Your task to perform on an android device: Check the weather Image 0: 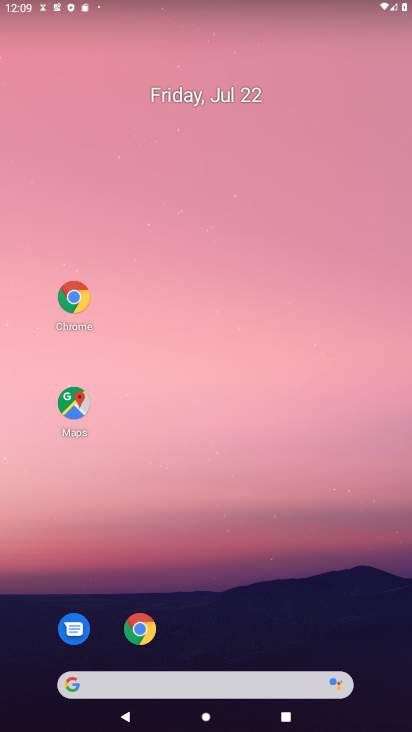
Step 0: drag from (278, 709) to (228, 175)
Your task to perform on an android device: Check the weather Image 1: 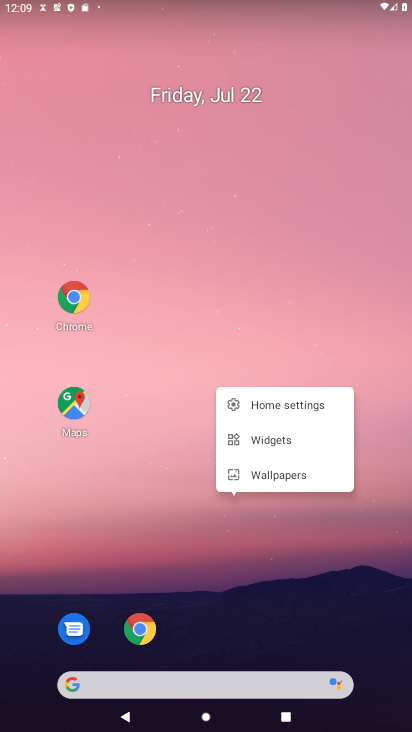
Step 1: drag from (239, 596) to (200, 113)
Your task to perform on an android device: Check the weather Image 2: 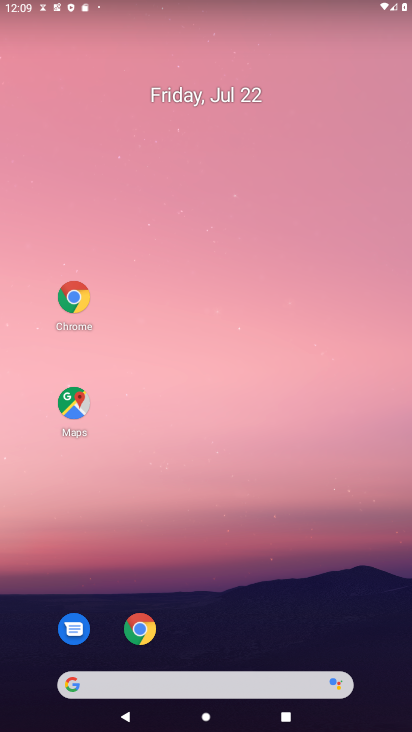
Step 2: drag from (197, 583) to (177, 202)
Your task to perform on an android device: Check the weather Image 3: 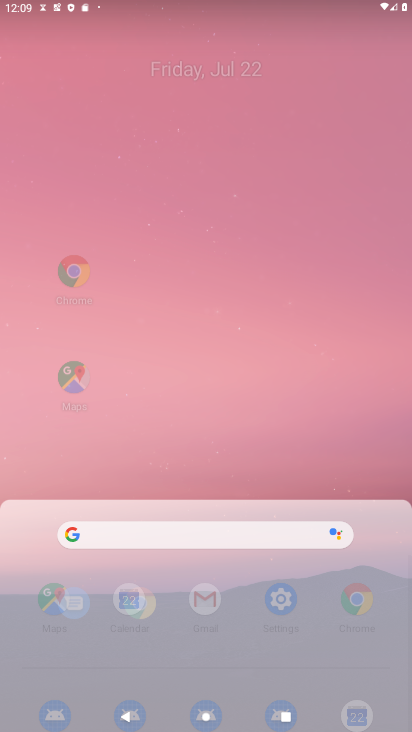
Step 3: click (177, 287)
Your task to perform on an android device: Check the weather Image 4: 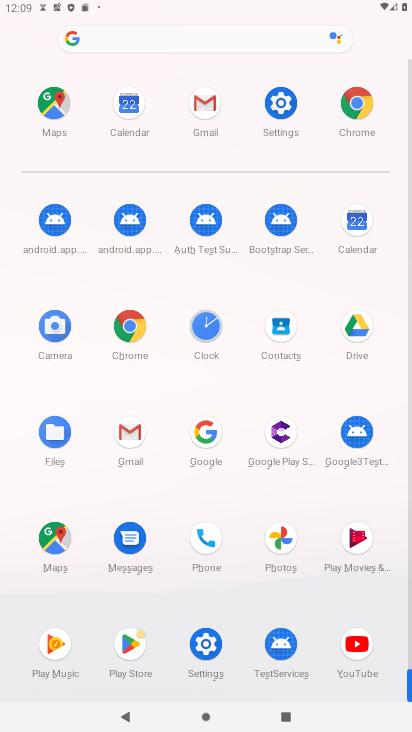
Step 4: click (348, 114)
Your task to perform on an android device: Check the weather Image 5: 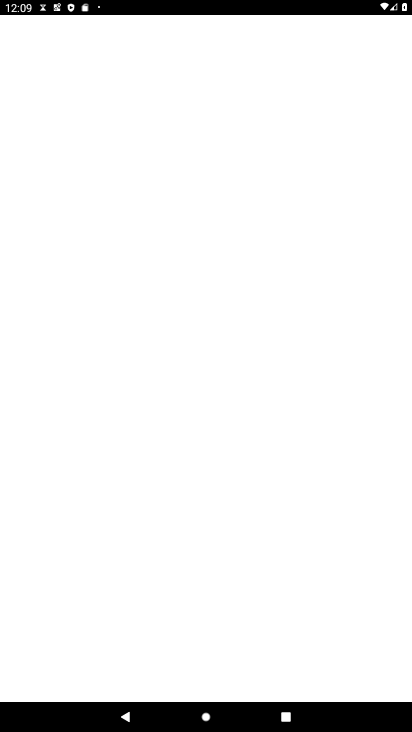
Step 5: click (348, 111)
Your task to perform on an android device: Check the weather Image 6: 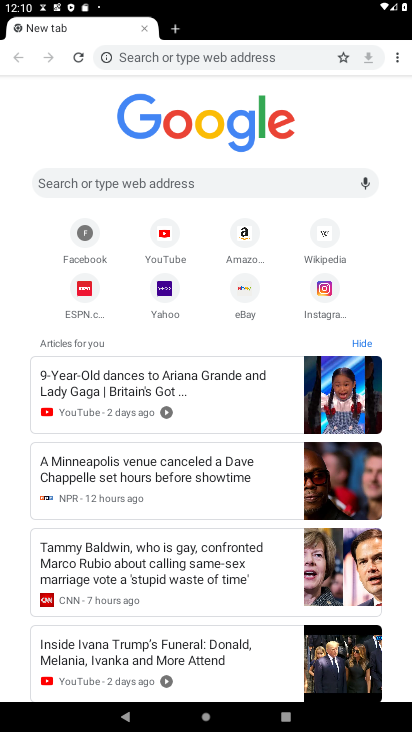
Step 6: click (79, 184)
Your task to perform on an android device: Check the weather Image 7: 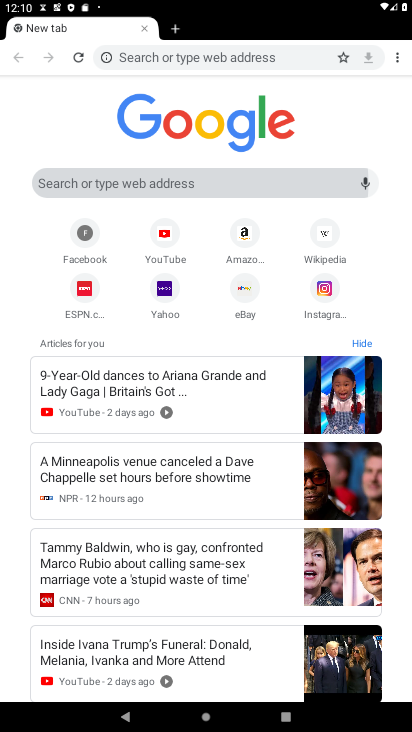
Step 7: click (79, 184)
Your task to perform on an android device: Check the weather Image 8: 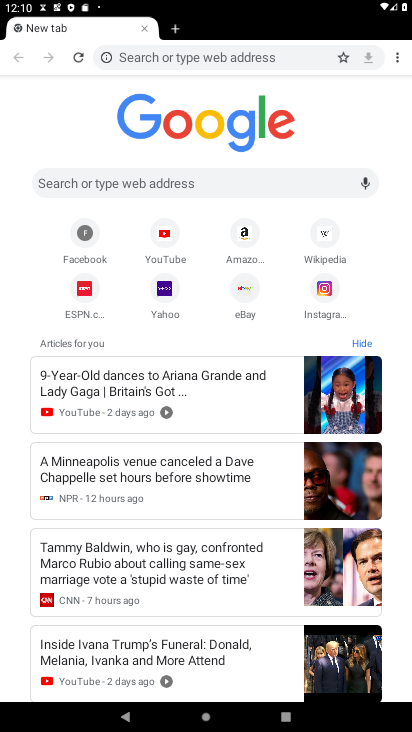
Step 8: click (66, 180)
Your task to perform on an android device: Check the weather Image 9: 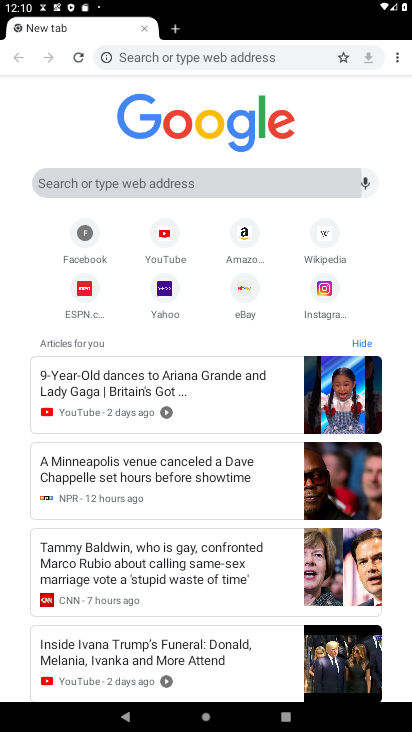
Step 9: click (67, 180)
Your task to perform on an android device: Check the weather Image 10: 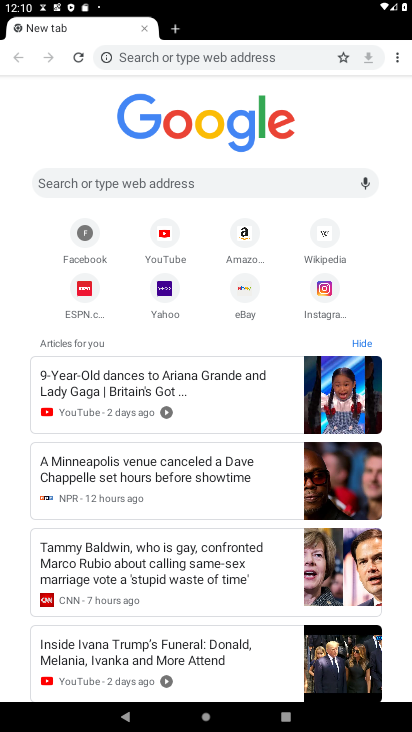
Step 10: click (123, 56)
Your task to perform on an android device: Check the weather Image 11: 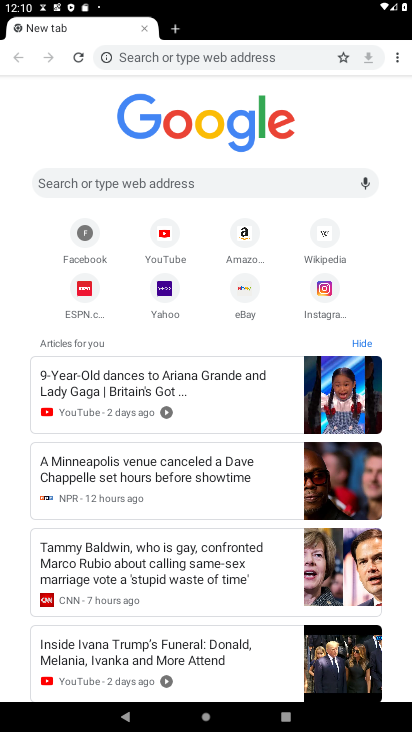
Step 11: click (123, 56)
Your task to perform on an android device: Check the weather Image 12: 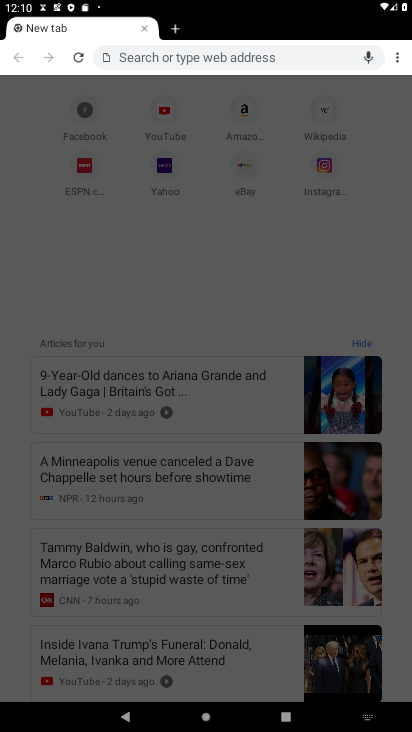
Step 12: click (123, 56)
Your task to perform on an android device: Check the weather Image 13: 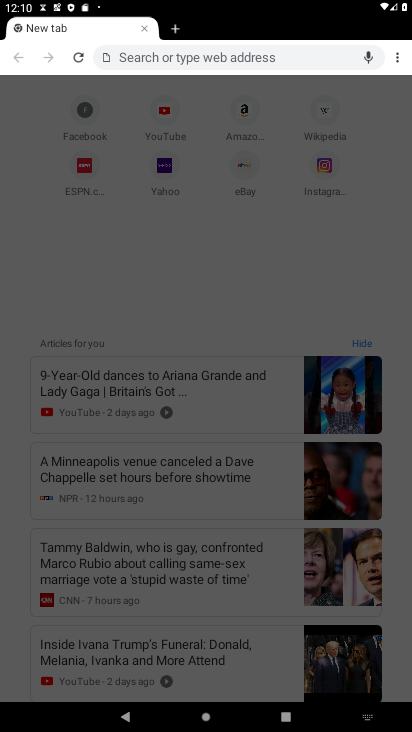
Step 13: click (123, 56)
Your task to perform on an android device: Check the weather Image 14: 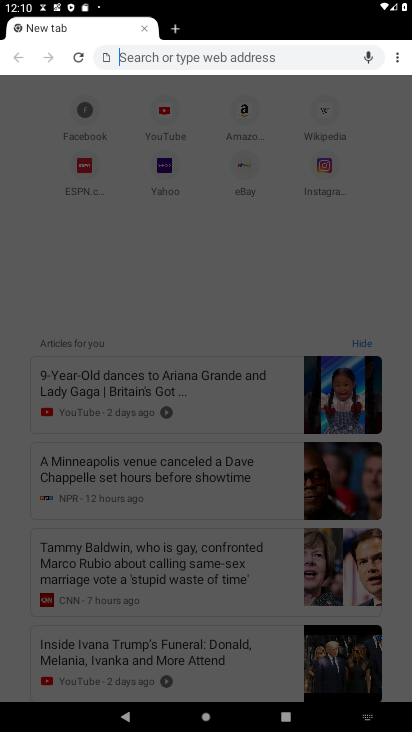
Step 14: click (123, 56)
Your task to perform on an android device: Check the weather Image 15: 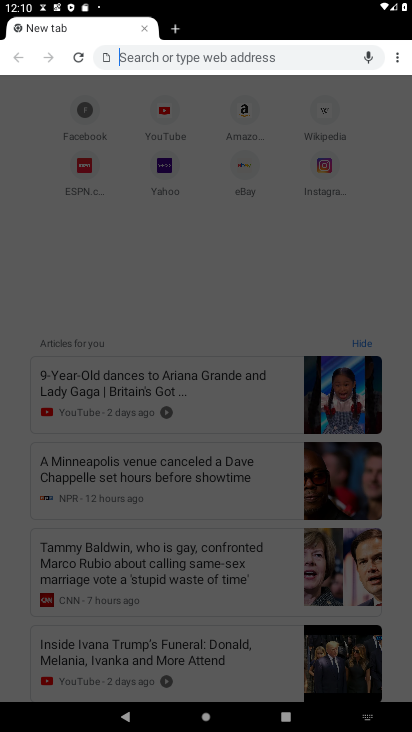
Step 15: type "weather"
Your task to perform on an android device: Check the weather Image 16: 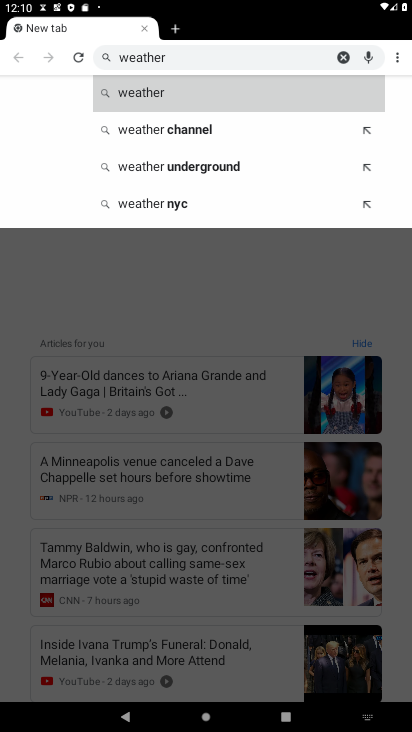
Step 16: click (161, 99)
Your task to perform on an android device: Check the weather Image 17: 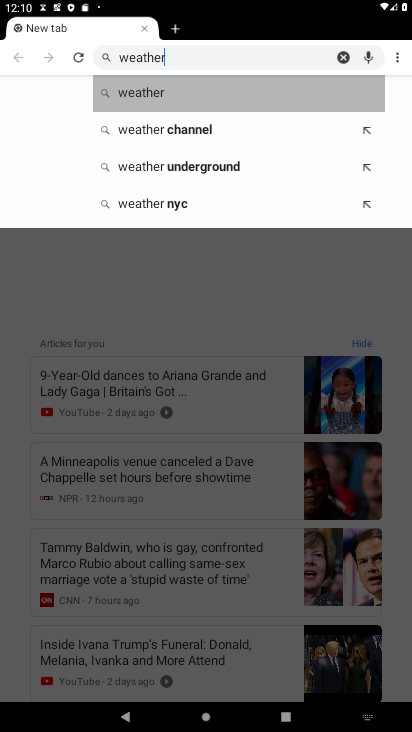
Step 17: click (160, 99)
Your task to perform on an android device: Check the weather Image 18: 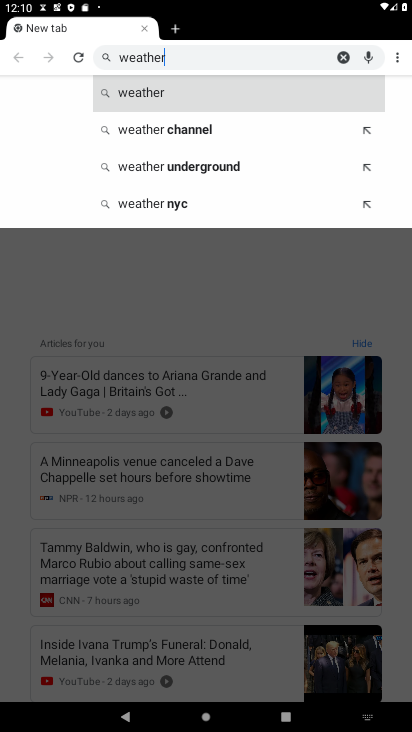
Step 18: click (157, 99)
Your task to perform on an android device: Check the weather Image 19: 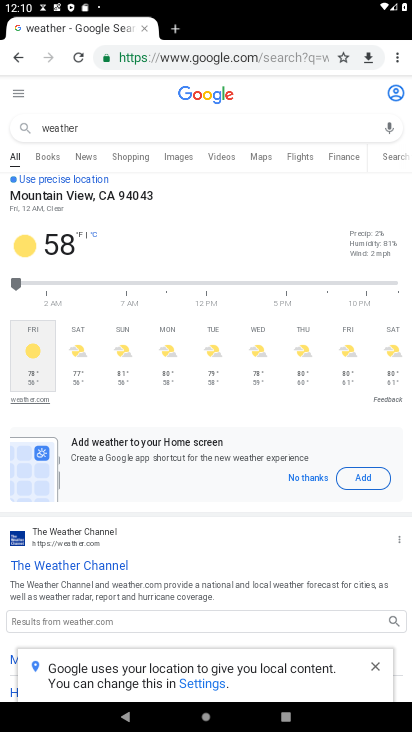
Step 19: task complete